Your task to perform on an android device: change notifications settings Image 0: 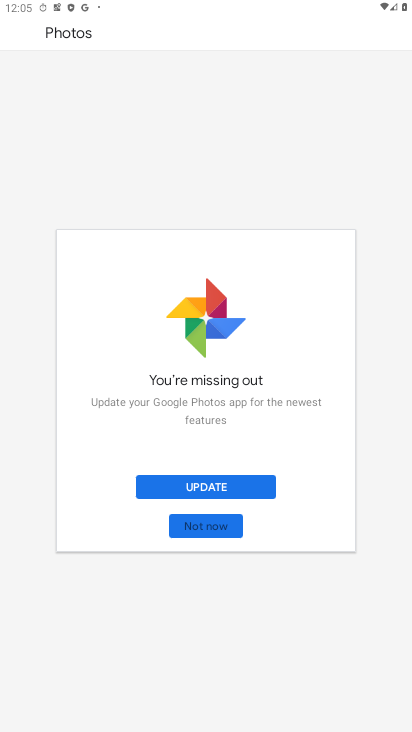
Step 0: press home button
Your task to perform on an android device: change notifications settings Image 1: 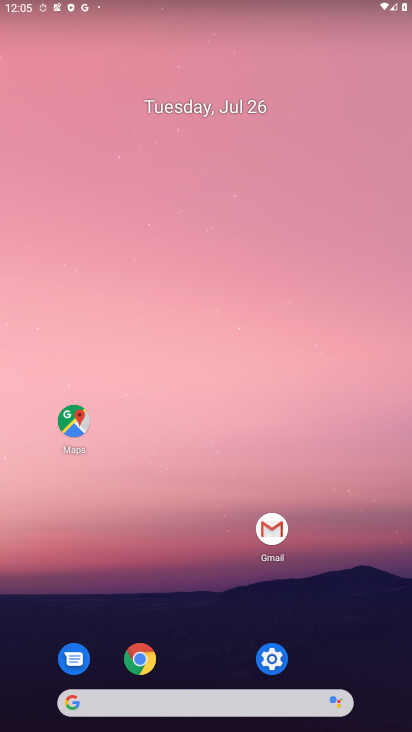
Step 1: click (263, 662)
Your task to perform on an android device: change notifications settings Image 2: 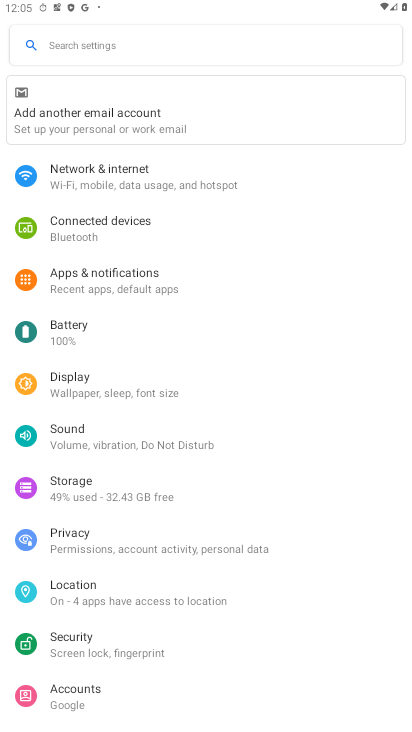
Step 2: click (111, 47)
Your task to perform on an android device: change notifications settings Image 3: 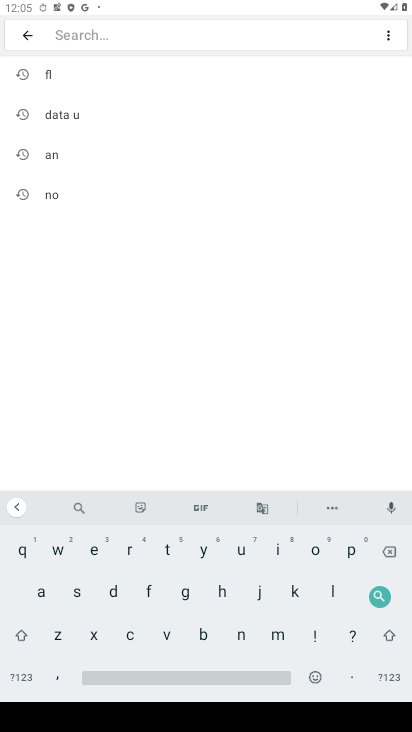
Step 3: click (43, 199)
Your task to perform on an android device: change notifications settings Image 4: 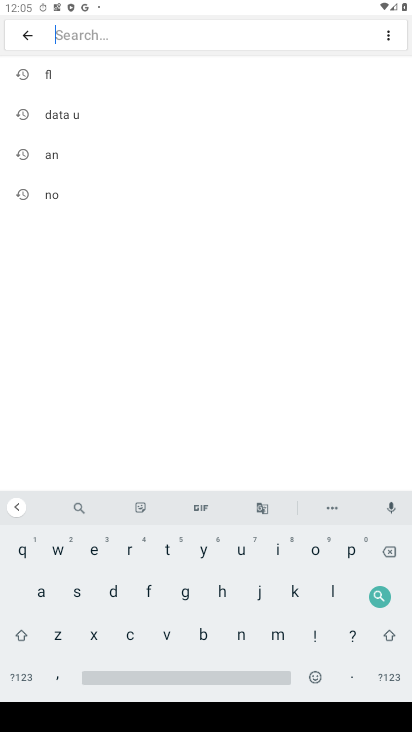
Step 4: click (80, 192)
Your task to perform on an android device: change notifications settings Image 5: 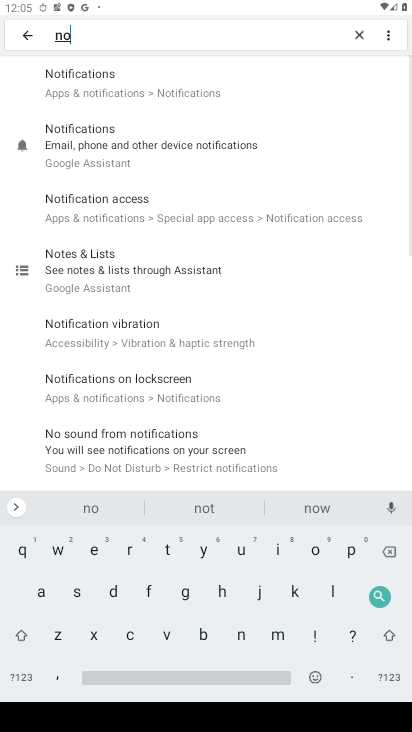
Step 5: click (94, 87)
Your task to perform on an android device: change notifications settings Image 6: 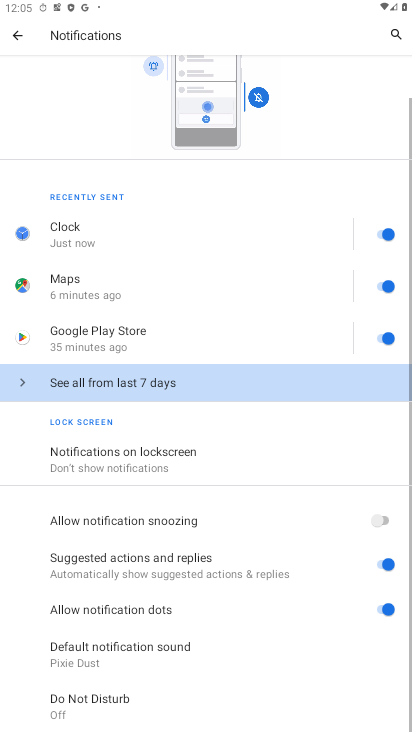
Step 6: click (110, 458)
Your task to perform on an android device: change notifications settings Image 7: 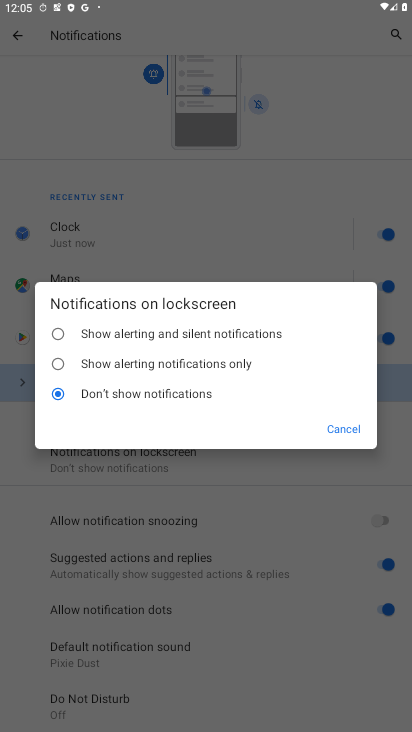
Step 7: click (188, 338)
Your task to perform on an android device: change notifications settings Image 8: 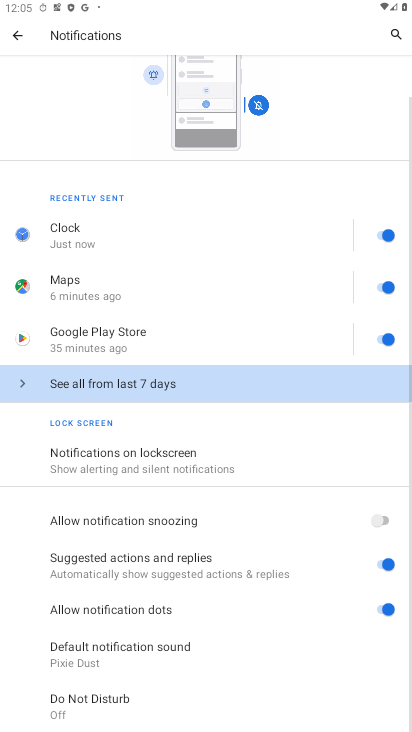
Step 8: click (112, 450)
Your task to perform on an android device: change notifications settings Image 9: 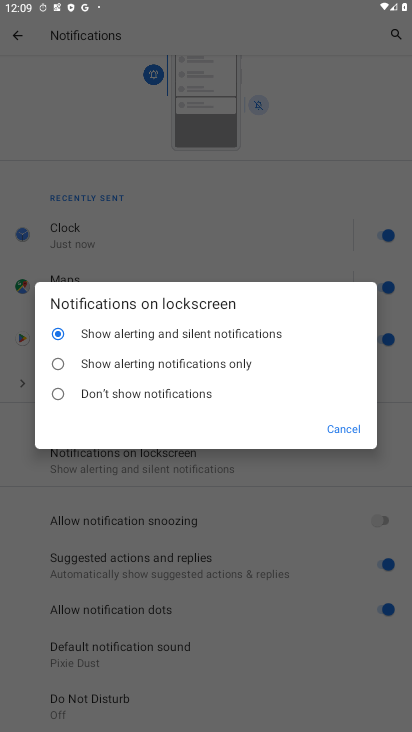
Step 9: task complete